Your task to perform on an android device: Open Youtube and go to "Your channel" Image 0: 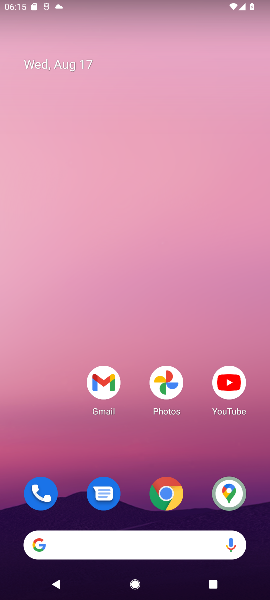
Step 0: drag from (150, 470) to (201, 139)
Your task to perform on an android device: Open Youtube and go to "Your channel" Image 1: 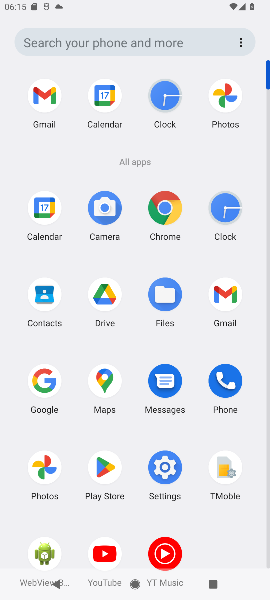
Step 1: click (104, 561)
Your task to perform on an android device: Open Youtube and go to "Your channel" Image 2: 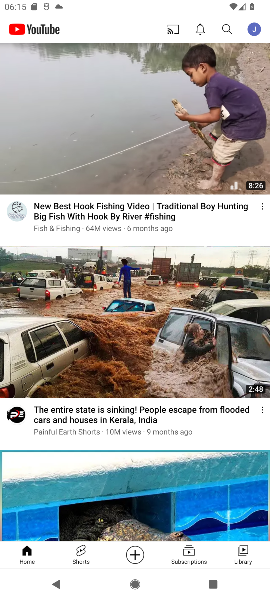
Step 2: click (256, 26)
Your task to perform on an android device: Open Youtube and go to "Your channel" Image 3: 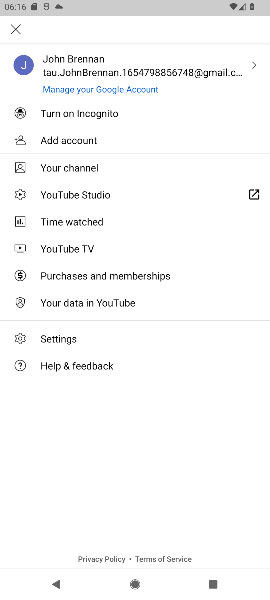
Step 3: click (64, 170)
Your task to perform on an android device: Open Youtube and go to "Your channel" Image 4: 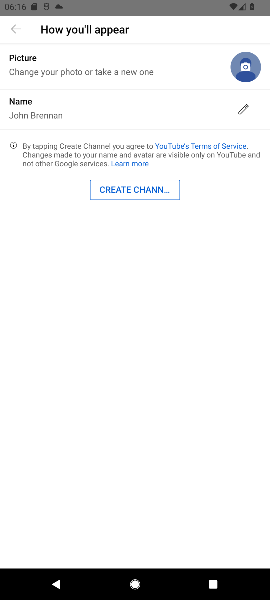
Step 4: task complete